Your task to perform on an android device: turn notification dots on Image 0: 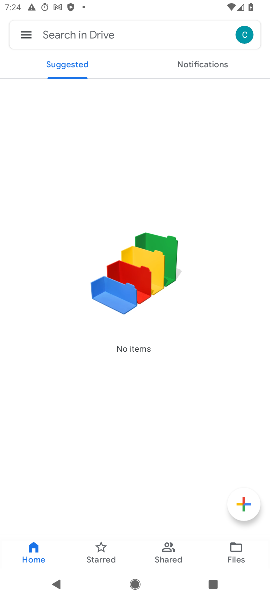
Step 0: drag from (142, 441) to (146, 60)
Your task to perform on an android device: turn notification dots on Image 1: 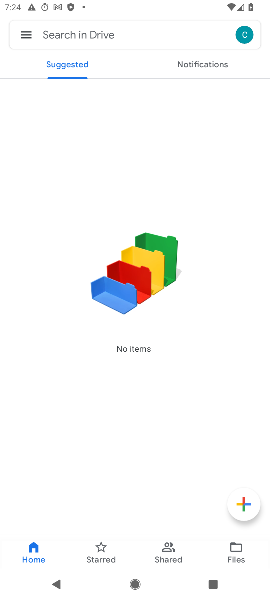
Step 1: press home button
Your task to perform on an android device: turn notification dots on Image 2: 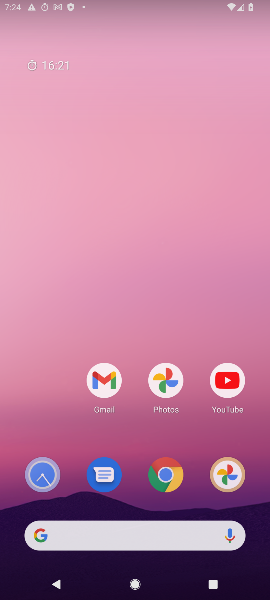
Step 2: drag from (84, 503) to (176, 108)
Your task to perform on an android device: turn notification dots on Image 3: 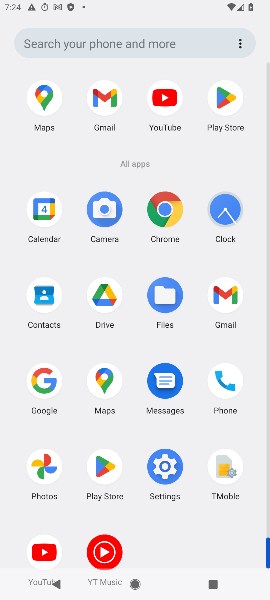
Step 3: drag from (126, 509) to (162, 105)
Your task to perform on an android device: turn notification dots on Image 4: 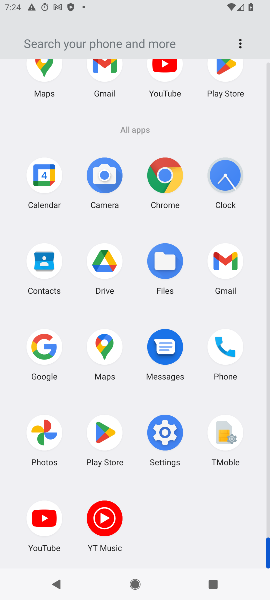
Step 4: click (168, 422)
Your task to perform on an android device: turn notification dots on Image 5: 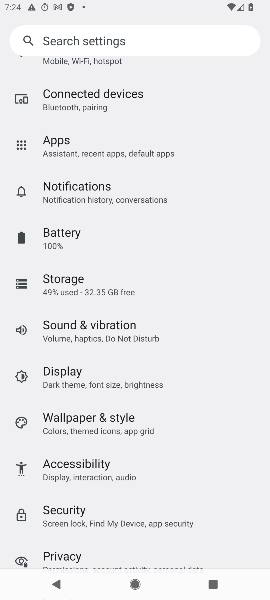
Step 5: click (98, 190)
Your task to perform on an android device: turn notification dots on Image 6: 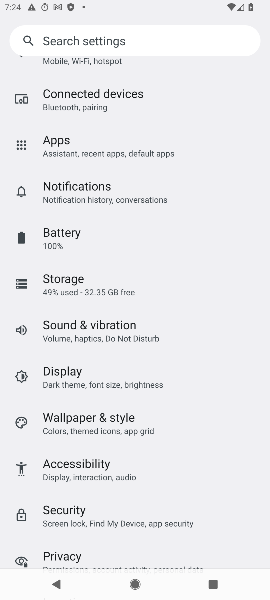
Step 6: click (97, 190)
Your task to perform on an android device: turn notification dots on Image 7: 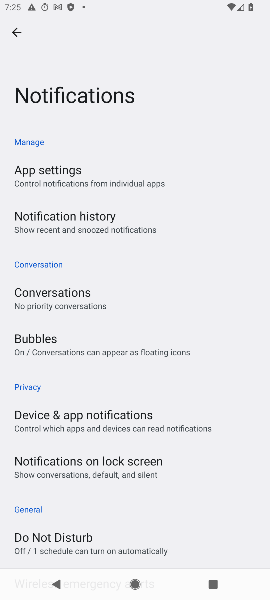
Step 7: drag from (104, 536) to (172, 129)
Your task to perform on an android device: turn notification dots on Image 8: 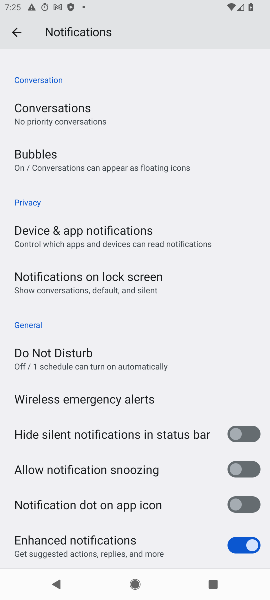
Step 8: click (229, 504)
Your task to perform on an android device: turn notification dots on Image 9: 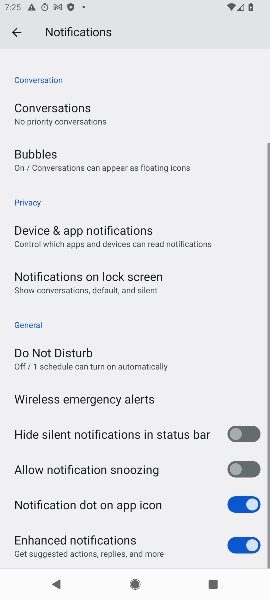
Step 9: task complete